Your task to perform on an android device: Open the calculator app Image 0: 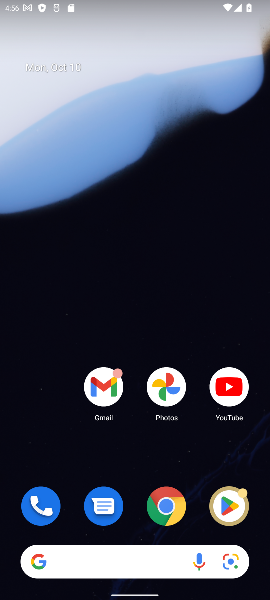
Step 0: drag from (123, 544) to (234, 125)
Your task to perform on an android device: Open the calculator app Image 1: 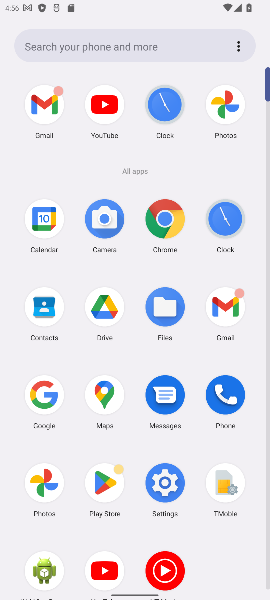
Step 1: click (102, 490)
Your task to perform on an android device: Open the calculator app Image 2: 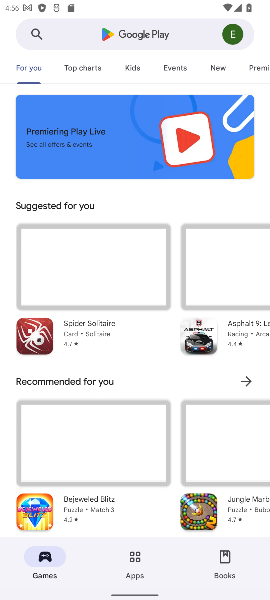
Step 2: task complete